Your task to perform on an android device: toggle airplane mode Image 0: 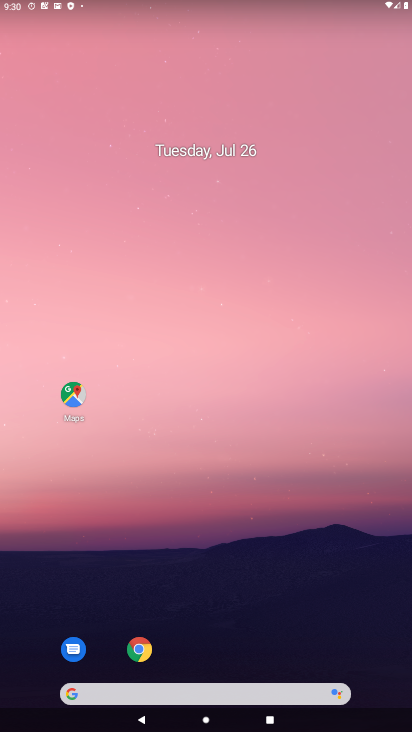
Step 0: drag from (198, 647) to (271, 0)
Your task to perform on an android device: toggle airplane mode Image 1: 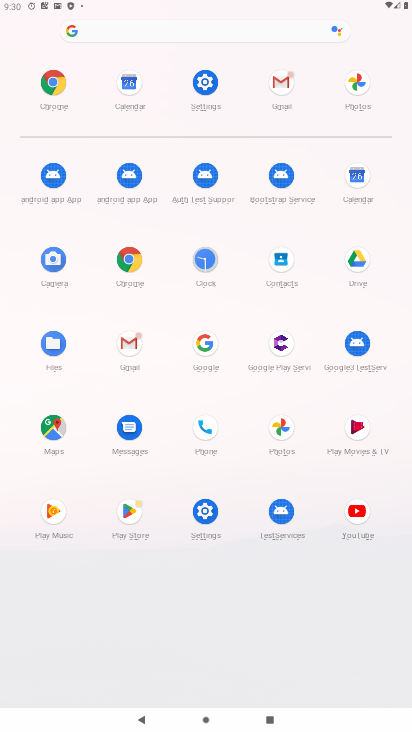
Step 1: click (202, 80)
Your task to perform on an android device: toggle airplane mode Image 2: 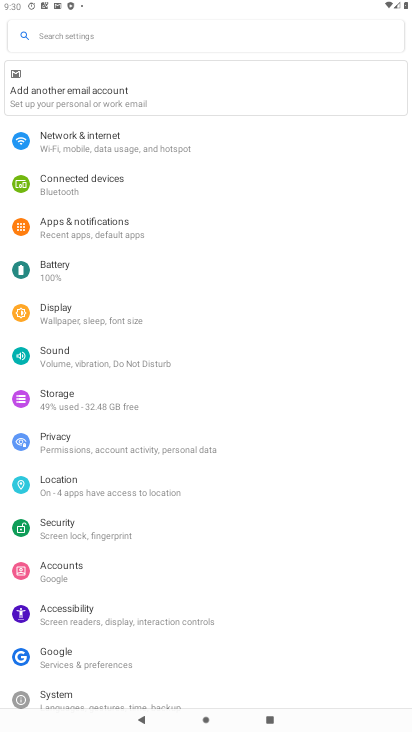
Step 2: click (124, 148)
Your task to perform on an android device: toggle airplane mode Image 3: 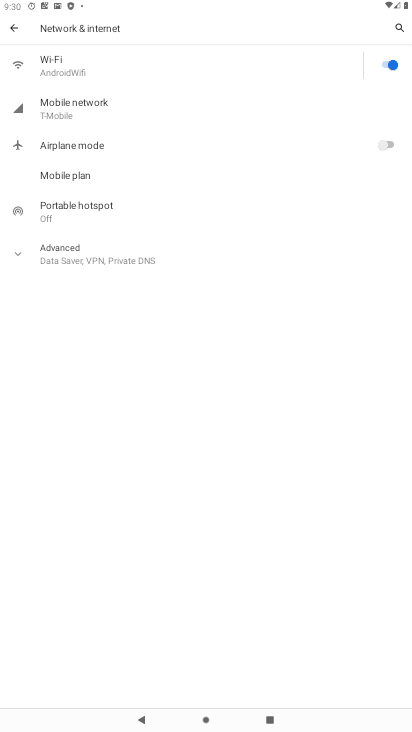
Step 3: click (136, 144)
Your task to perform on an android device: toggle airplane mode Image 4: 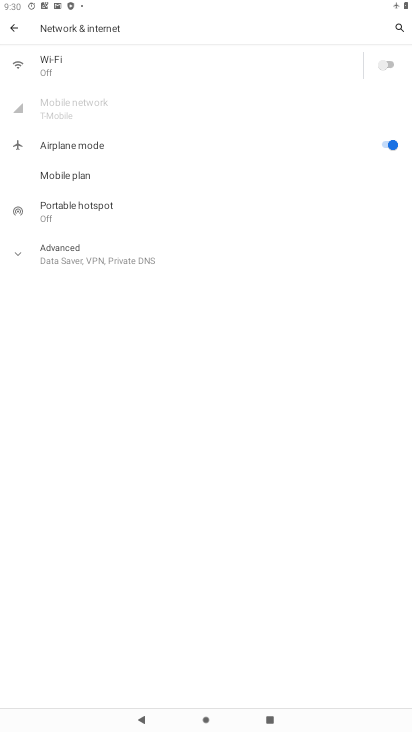
Step 4: task complete